Your task to perform on an android device: delete location history Image 0: 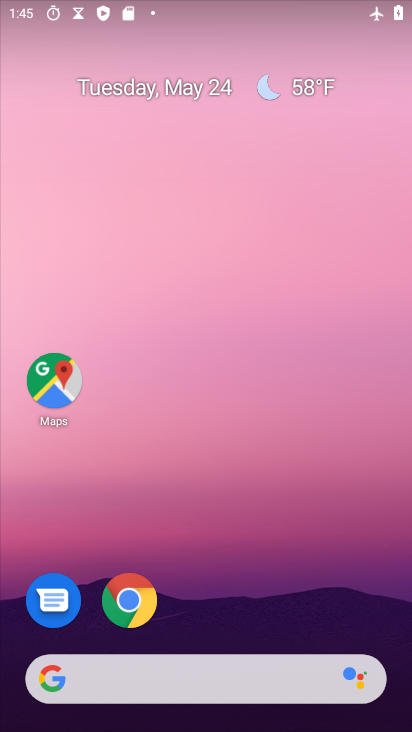
Step 0: drag from (276, 382) to (252, 0)
Your task to perform on an android device: delete location history Image 1: 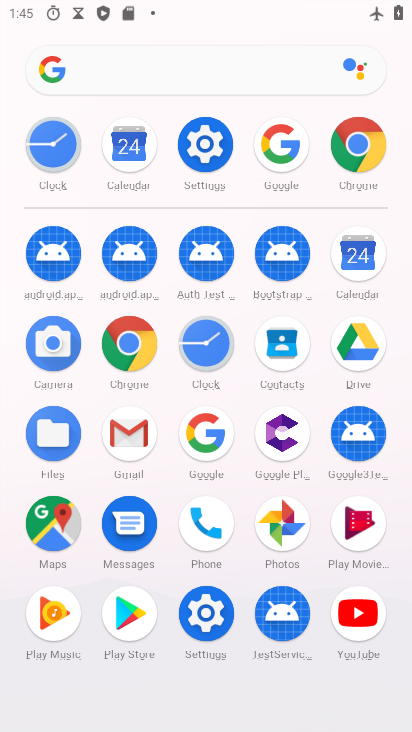
Step 1: click (209, 150)
Your task to perform on an android device: delete location history Image 2: 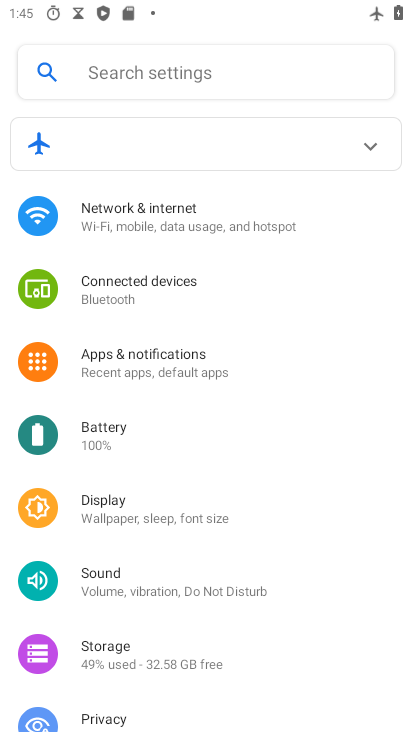
Step 2: drag from (225, 657) to (250, 253)
Your task to perform on an android device: delete location history Image 3: 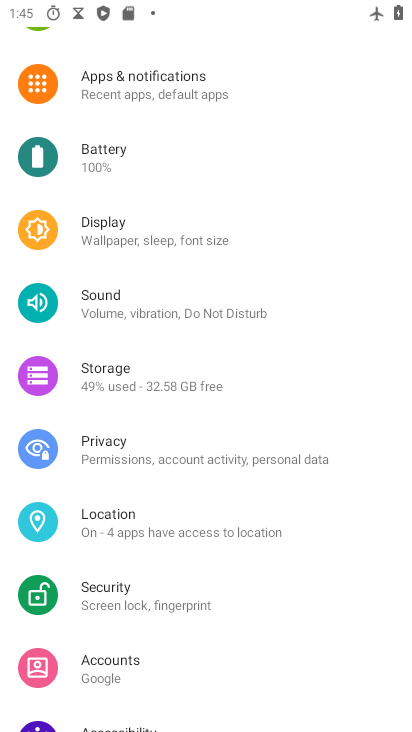
Step 3: click (175, 525)
Your task to perform on an android device: delete location history Image 4: 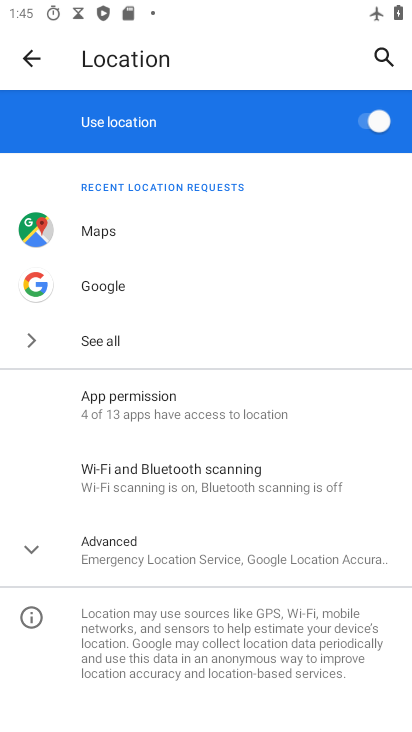
Step 4: click (210, 551)
Your task to perform on an android device: delete location history Image 5: 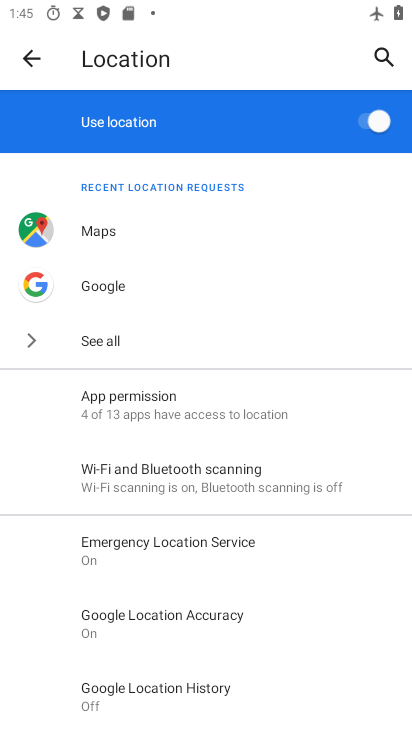
Step 5: click (225, 688)
Your task to perform on an android device: delete location history Image 6: 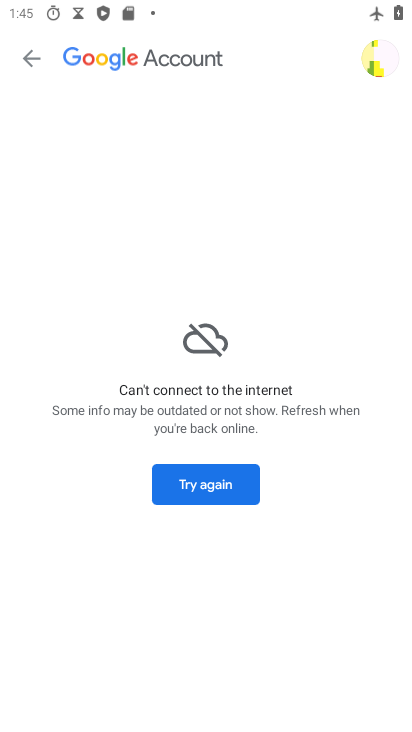
Step 6: press home button
Your task to perform on an android device: delete location history Image 7: 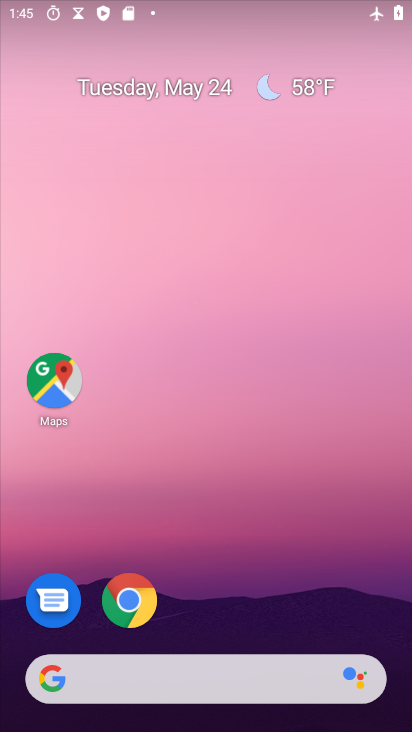
Step 7: drag from (260, 583) to (263, 40)
Your task to perform on an android device: delete location history Image 8: 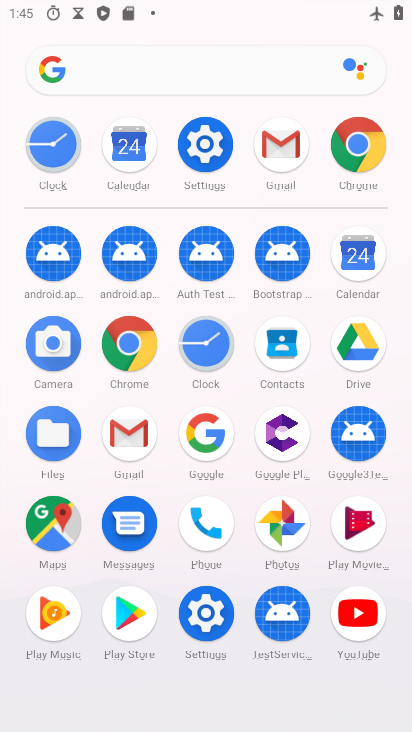
Step 8: click (202, 141)
Your task to perform on an android device: delete location history Image 9: 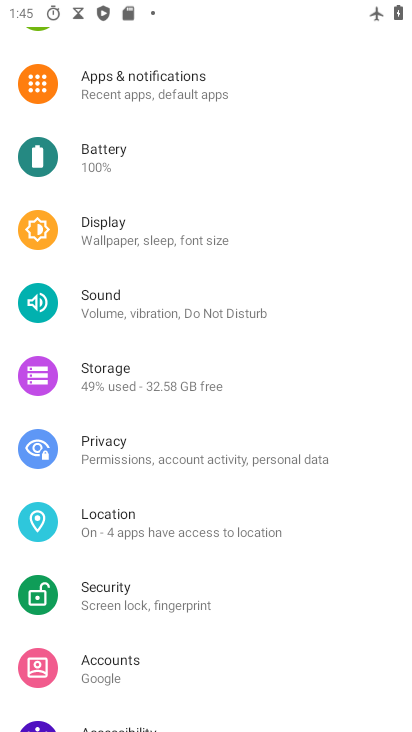
Step 9: click (171, 523)
Your task to perform on an android device: delete location history Image 10: 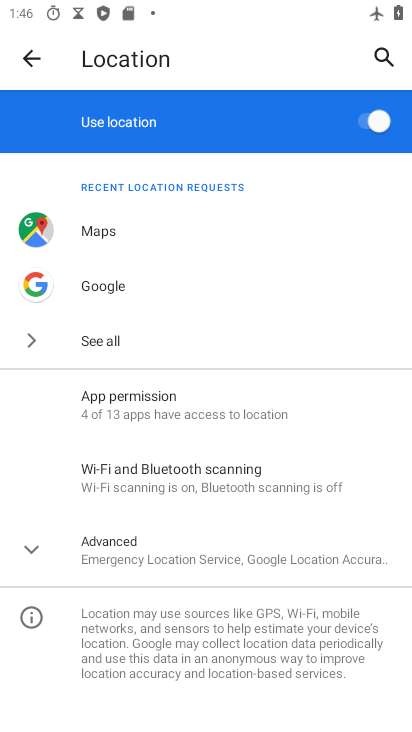
Step 10: click (236, 542)
Your task to perform on an android device: delete location history Image 11: 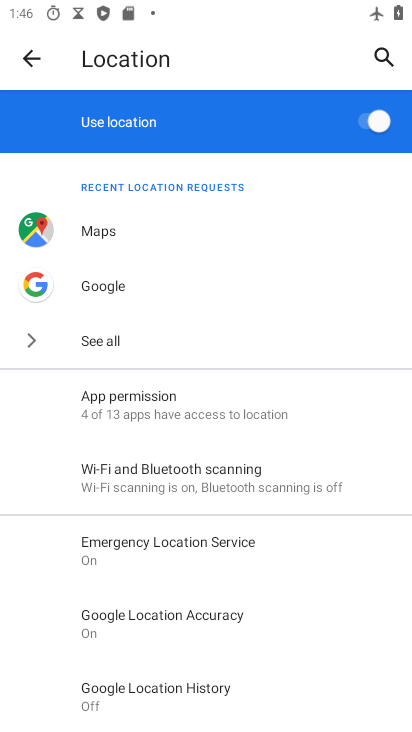
Step 11: click (245, 689)
Your task to perform on an android device: delete location history Image 12: 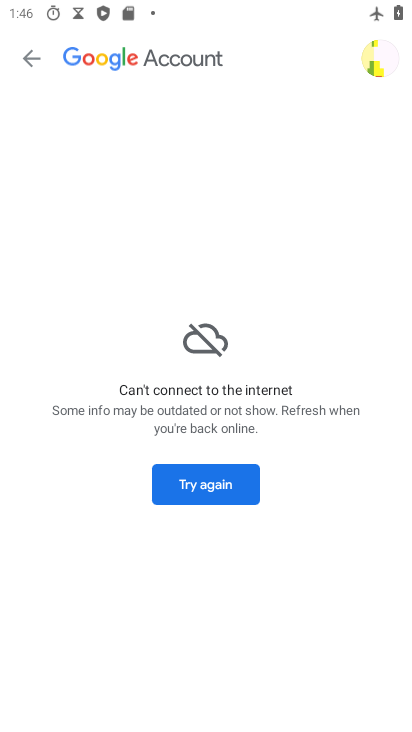
Step 12: task complete